Your task to perform on an android device: Open notification settings Image 0: 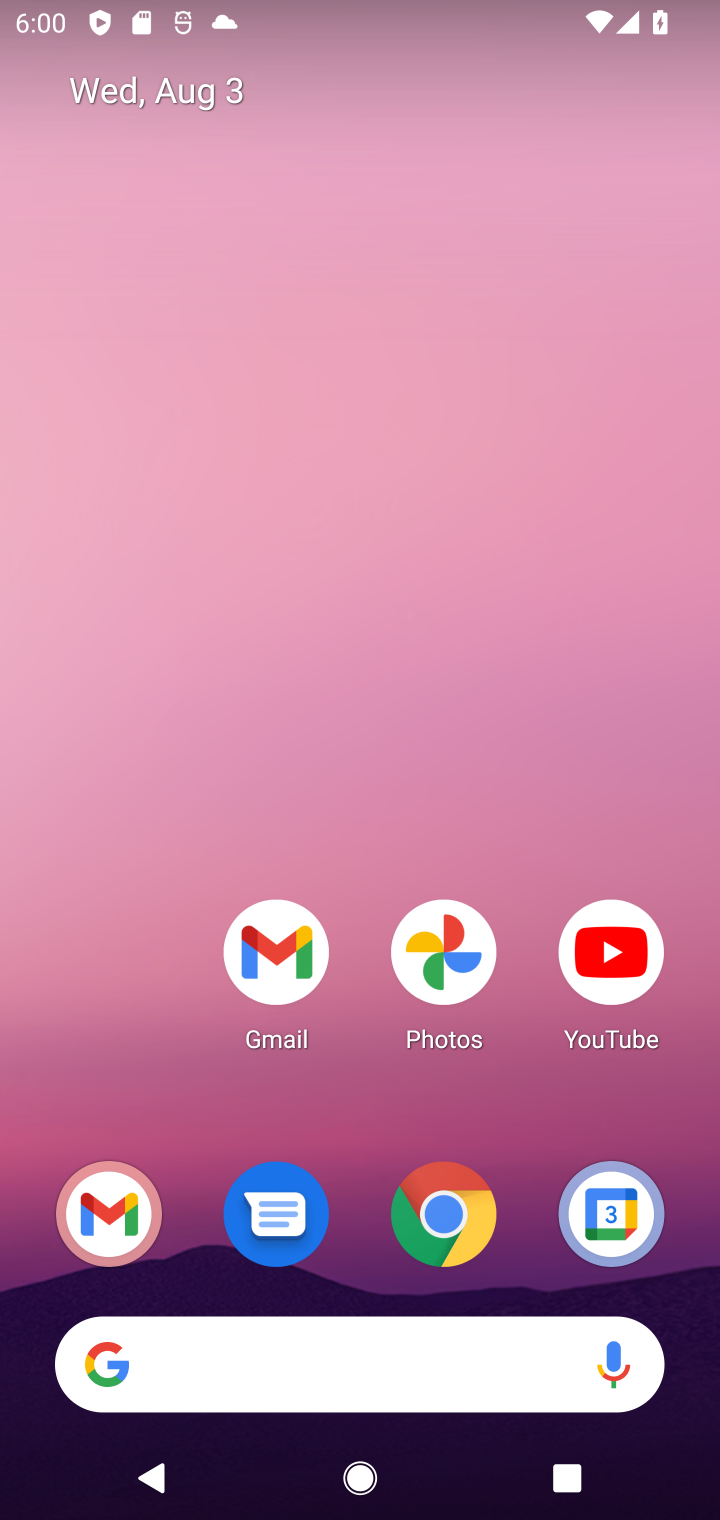
Step 0: drag from (158, 852) to (366, 11)
Your task to perform on an android device: Open notification settings Image 1: 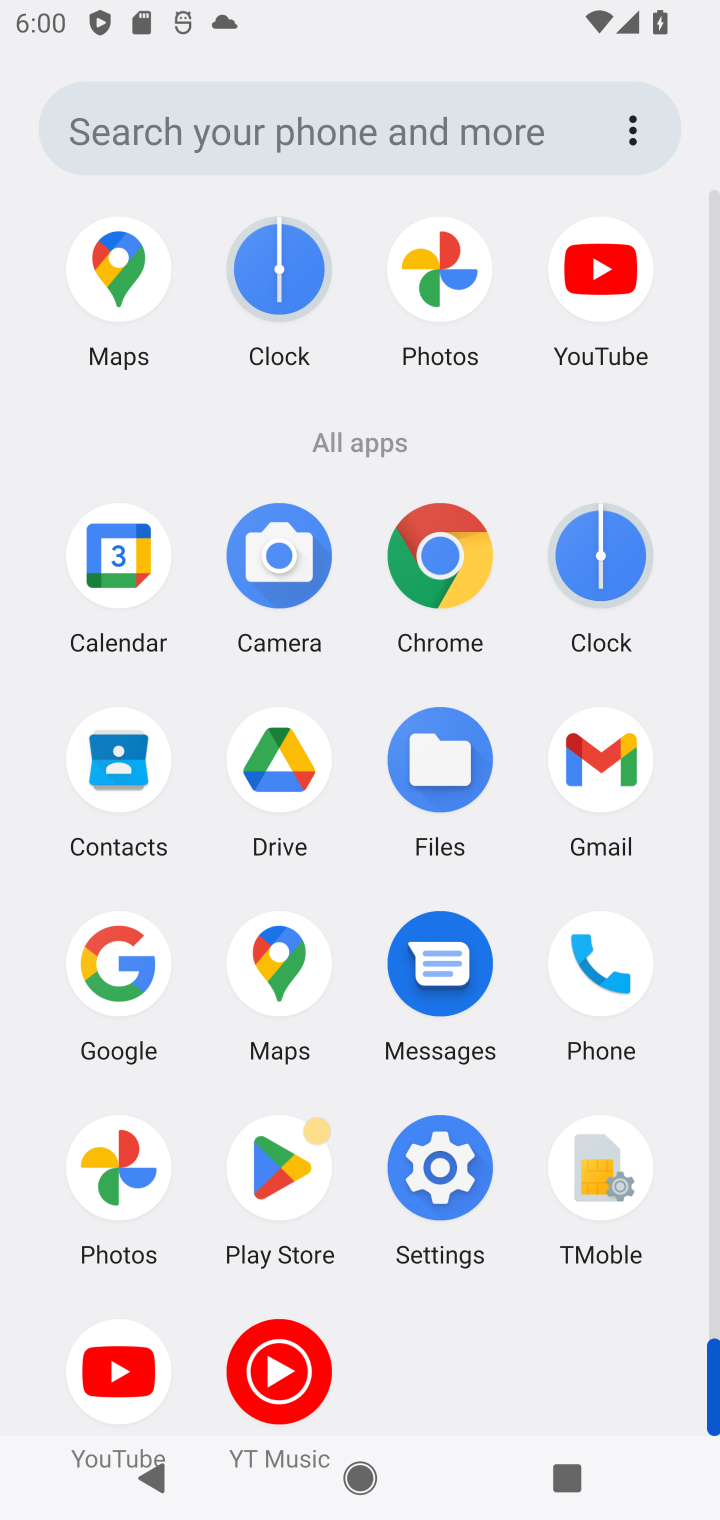
Step 1: click (444, 1183)
Your task to perform on an android device: Open notification settings Image 2: 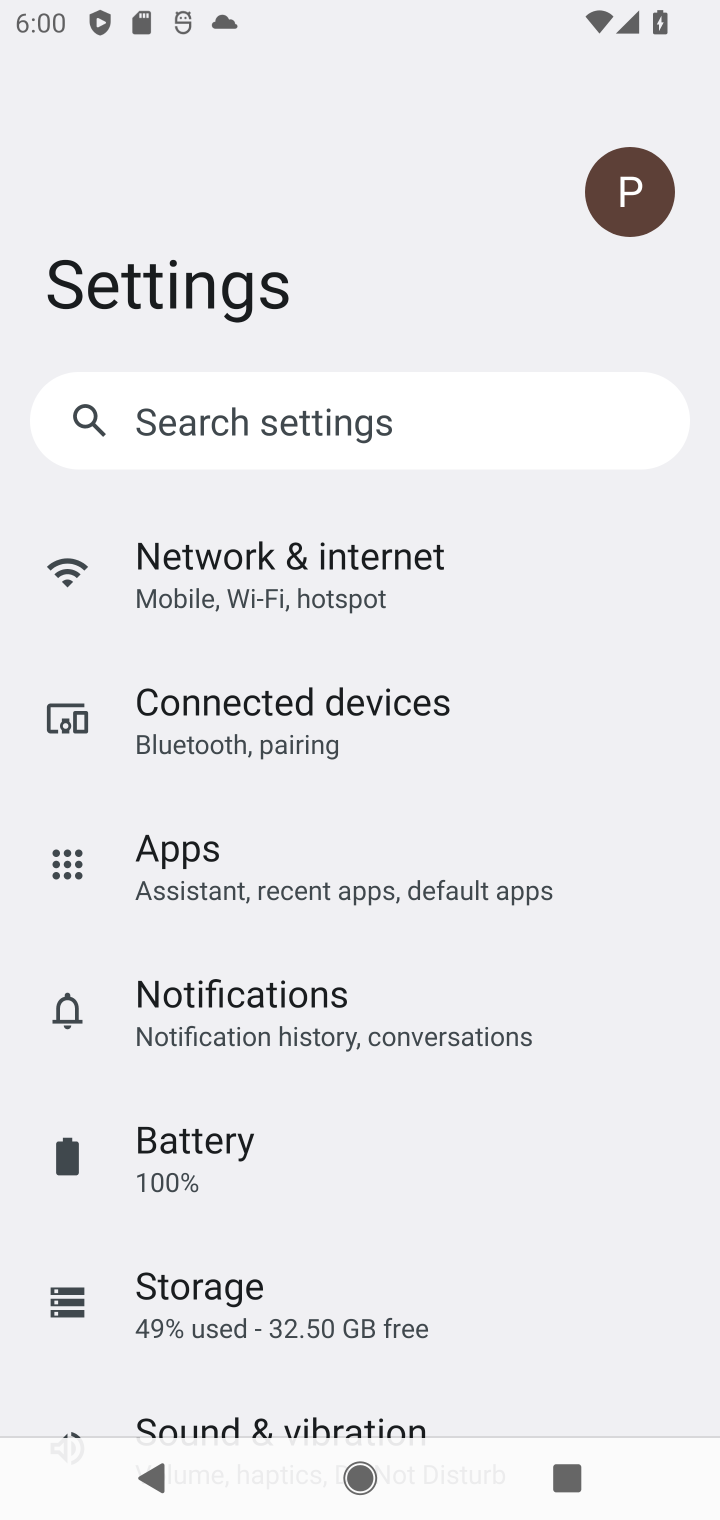
Step 2: click (326, 1026)
Your task to perform on an android device: Open notification settings Image 3: 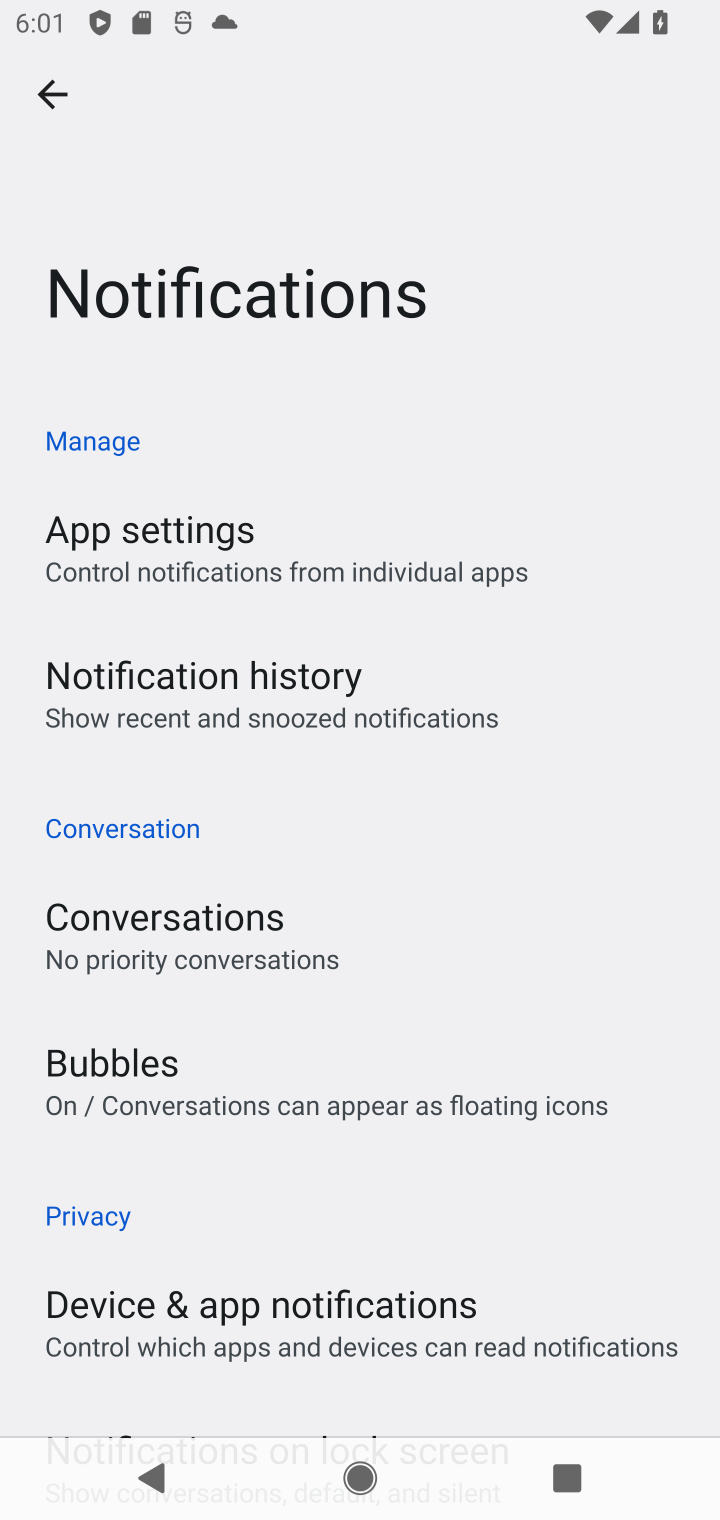
Step 3: click (309, 682)
Your task to perform on an android device: Open notification settings Image 4: 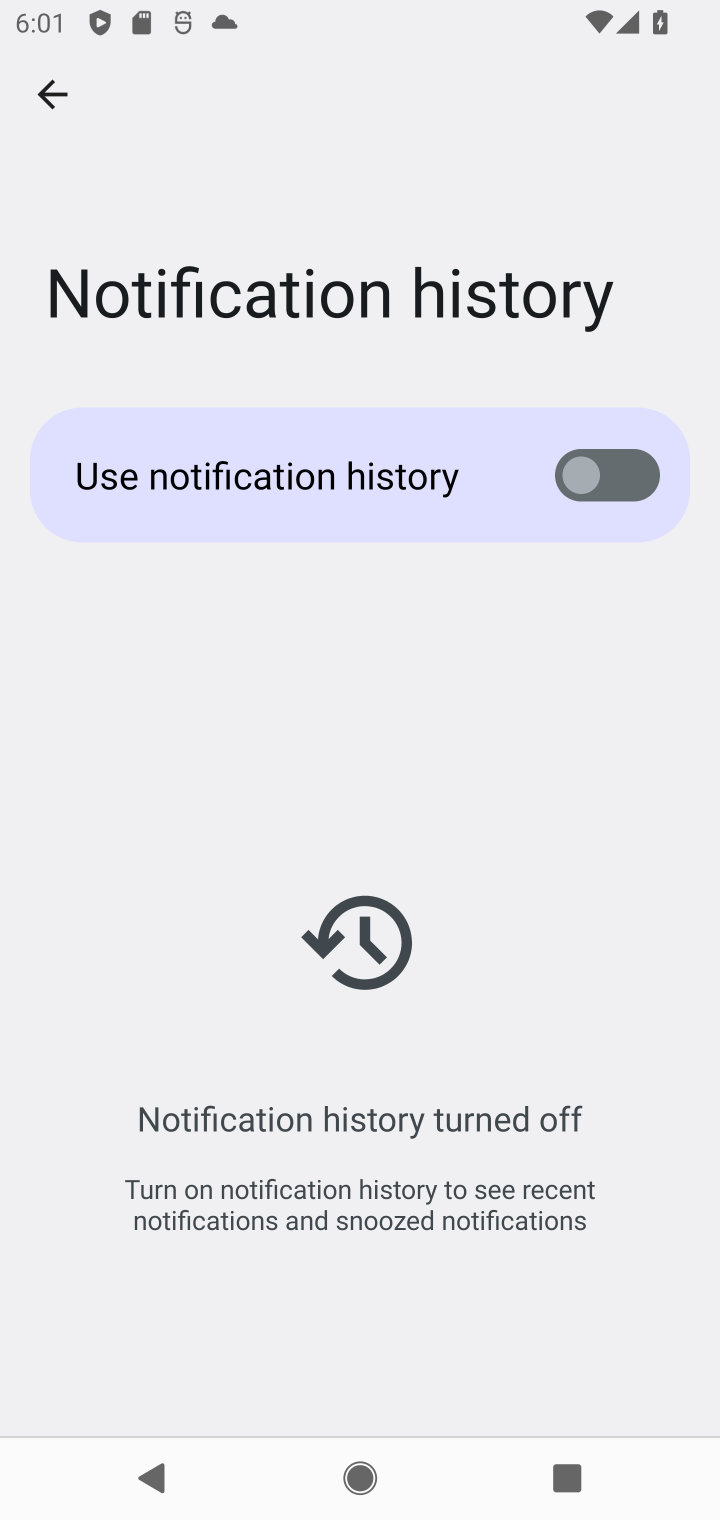
Step 4: task complete